Your task to perform on an android device: Open notification settings Image 0: 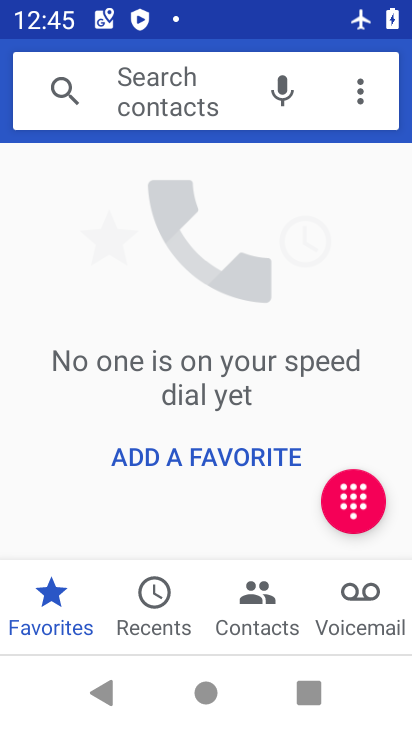
Step 0: press back button
Your task to perform on an android device: Open notification settings Image 1: 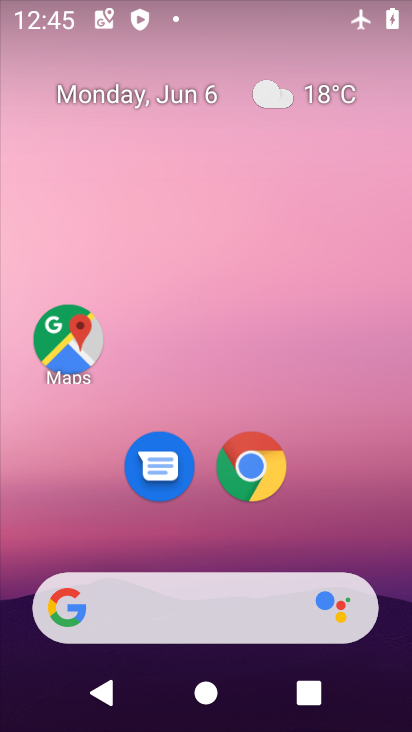
Step 1: drag from (366, 484) to (268, 53)
Your task to perform on an android device: Open notification settings Image 2: 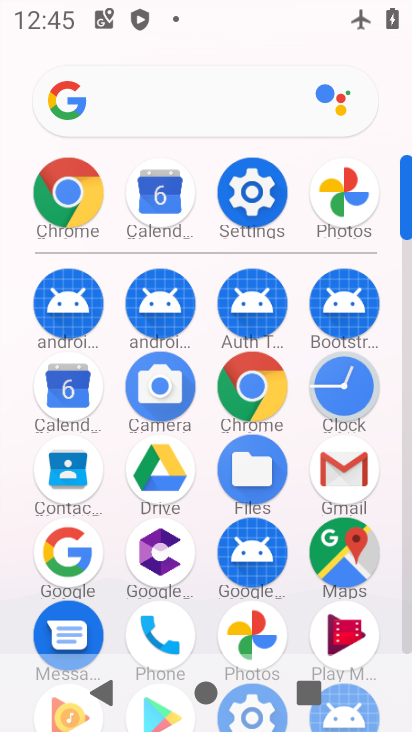
Step 2: drag from (0, 595) to (12, 245)
Your task to perform on an android device: Open notification settings Image 3: 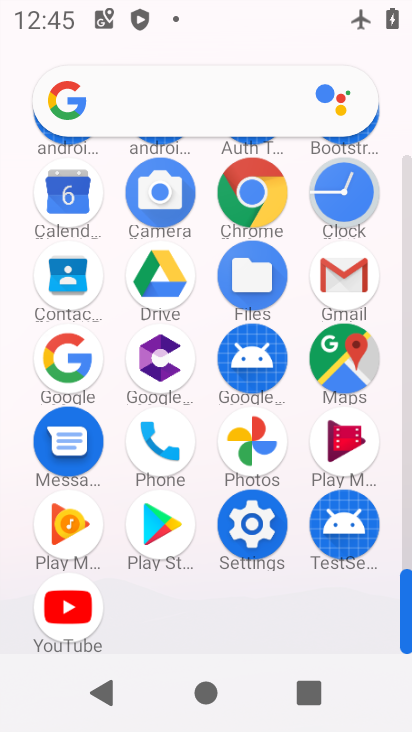
Step 3: click (251, 519)
Your task to perform on an android device: Open notification settings Image 4: 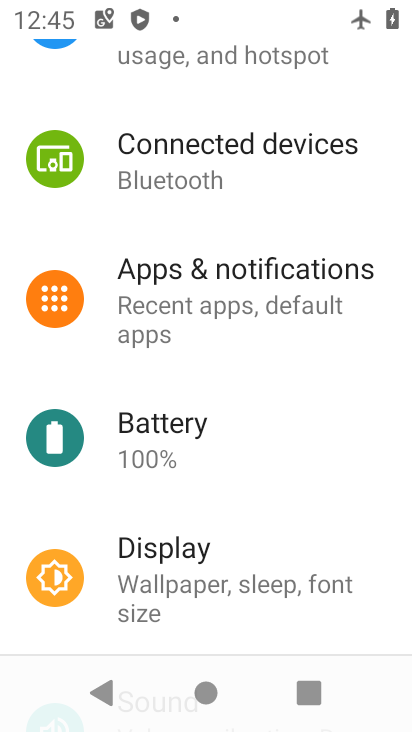
Step 4: click (252, 316)
Your task to perform on an android device: Open notification settings Image 5: 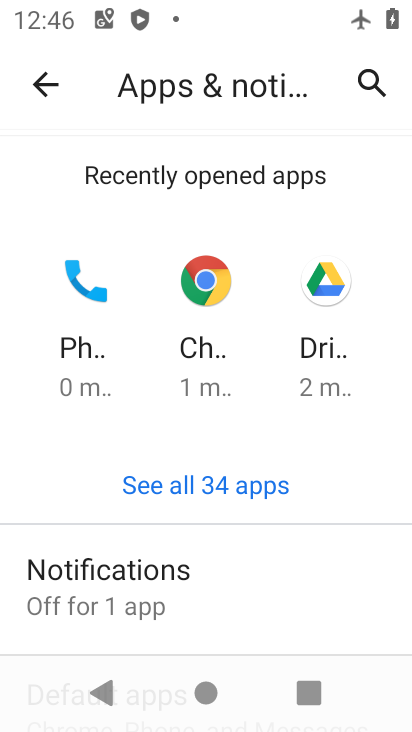
Step 5: drag from (273, 627) to (288, 191)
Your task to perform on an android device: Open notification settings Image 6: 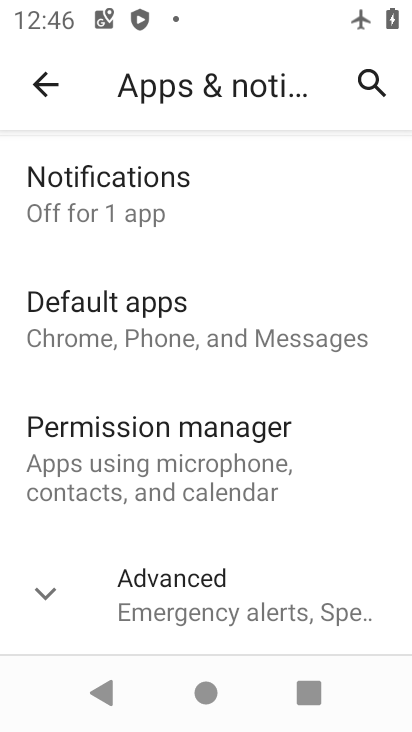
Step 6: click (47, 597)
Your task to perform on an android device: Open notification settings Image 7: 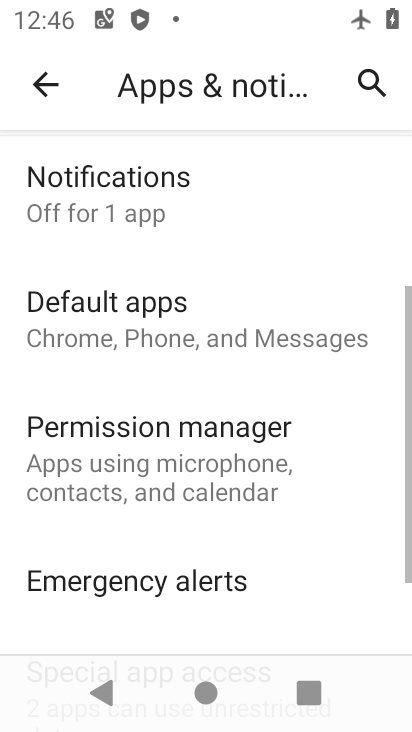
Step 7: task complete